Your task to perform on an android device: Go to Google Image 0: 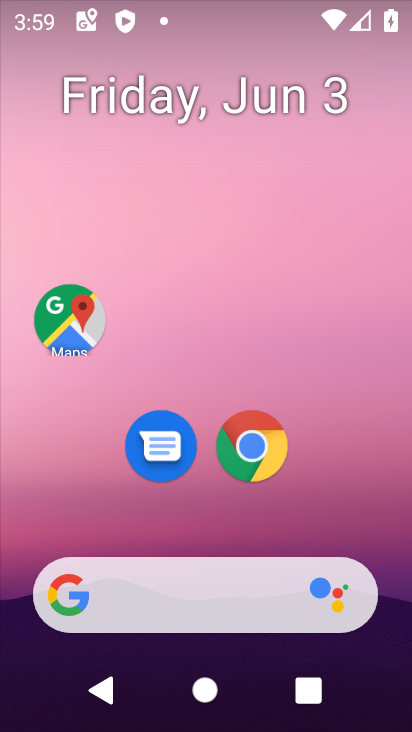
Step 0: task complete